Your task to perform on an android device: Open calendar and show me the fourth week of next month Image 0: 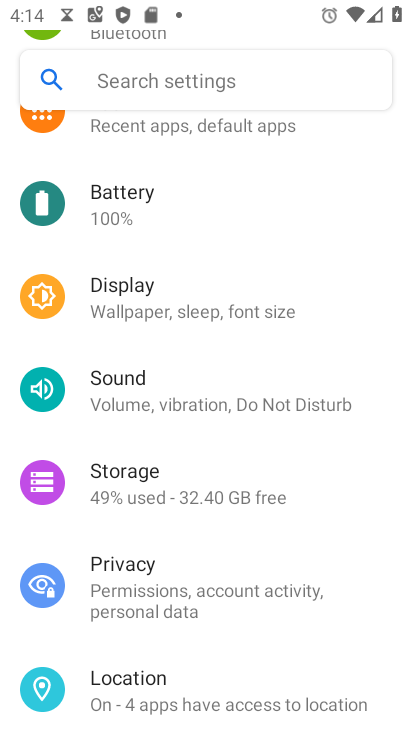
Step 0: press home button
Your task to perform on an android device: Open calendar and show me the fourth week of next month Image 1: 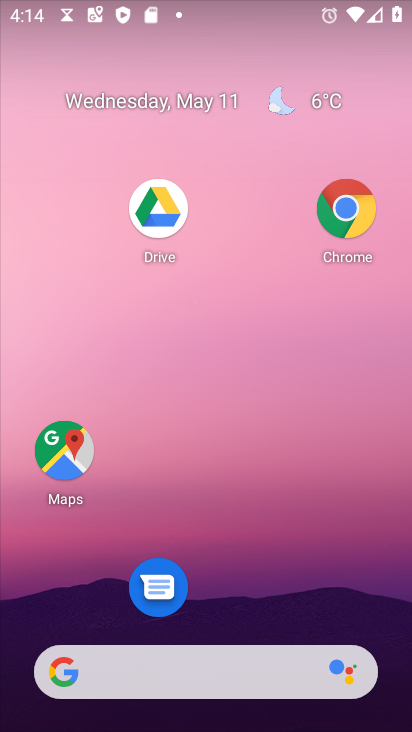
Step 1: click (208, 100)
Your task to perform on an android device: Open calendar and show me the fourth week of next month Image 2: 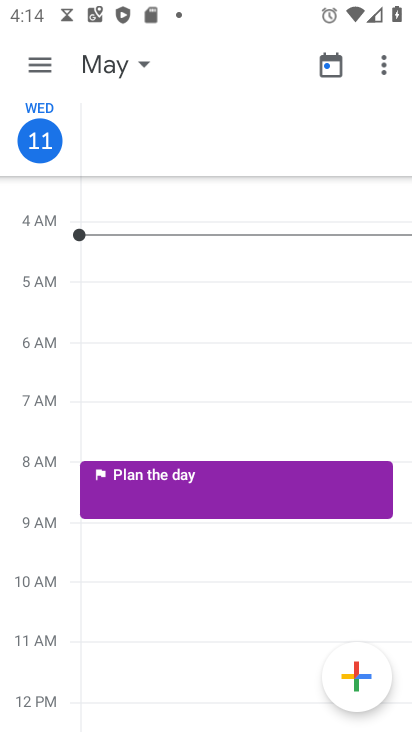
Step 2: click (123, 64)
Your task to perform on an android device: Open calendar and show me the fourth week of next month Image 3: 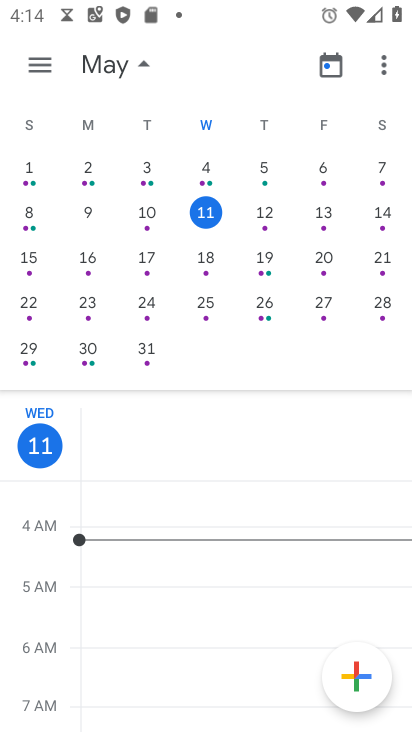
Step 3: drag from (349, 255) to (30, 248)
Your task to perform on an android device: Open calendar and show me the fourth week of next month Image 4: 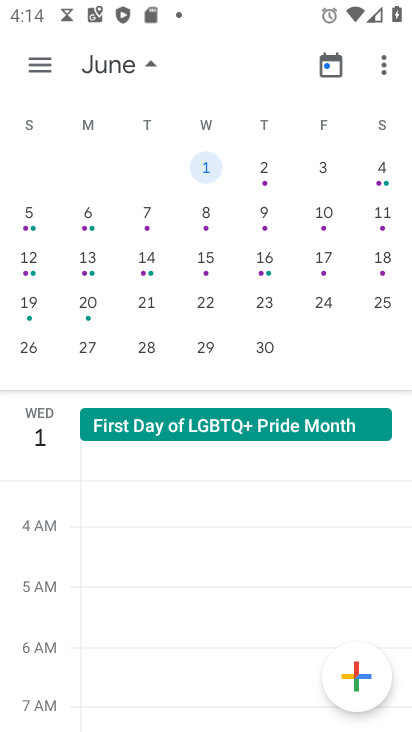
Step 4: click (92, 305)
Your task to perform on an android device: Open calendar and show me the fourth week of next month Image 5: 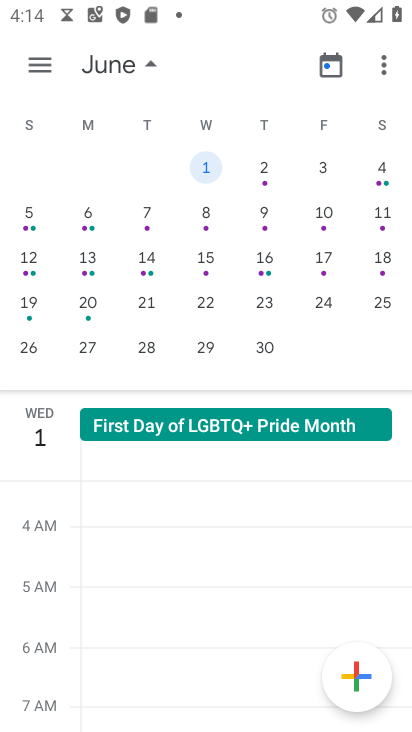
Step 5: click (92, 306)
Your task to perform on an android device: Open calendar and show me the fourth week of next month Image 6: 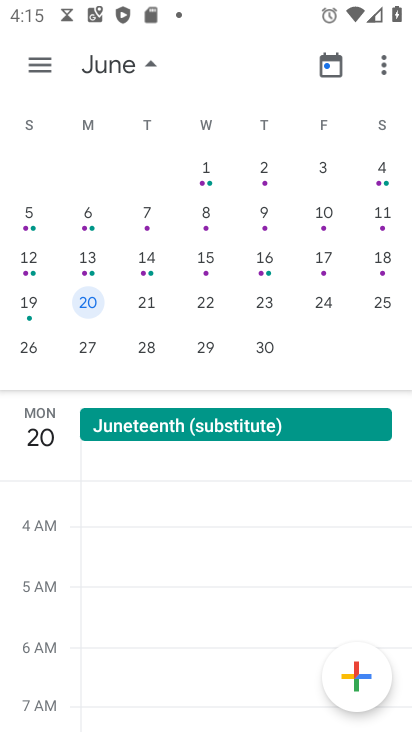
Step 6: click (48, 69)
Your task to perform on an android device: Open calendar and show me the fourth week of next month Image 7: 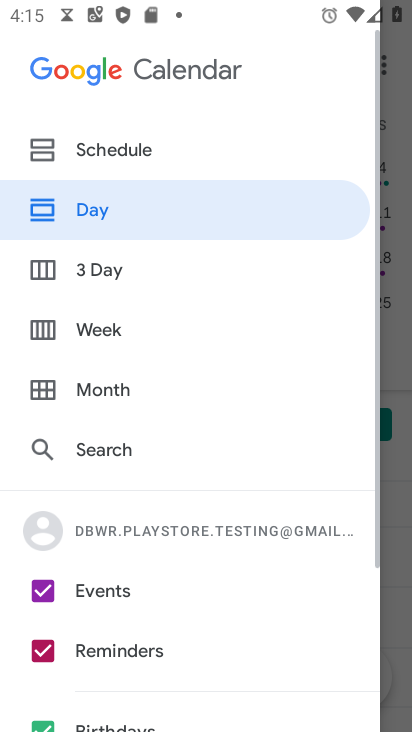
Step 7: click (95, 330)
Your task to perform on an android device: Open calendar and show me the fourth week of next month Image 8: 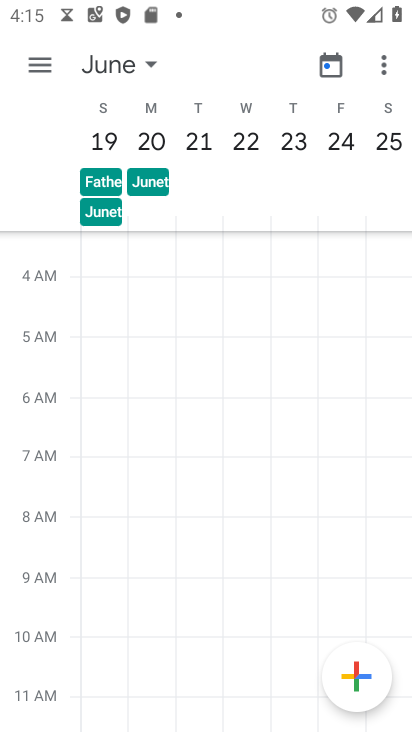
Step 8: task complete